Your task to perform on an android device: open the mobile data screen to see how much data has been used Image 0: 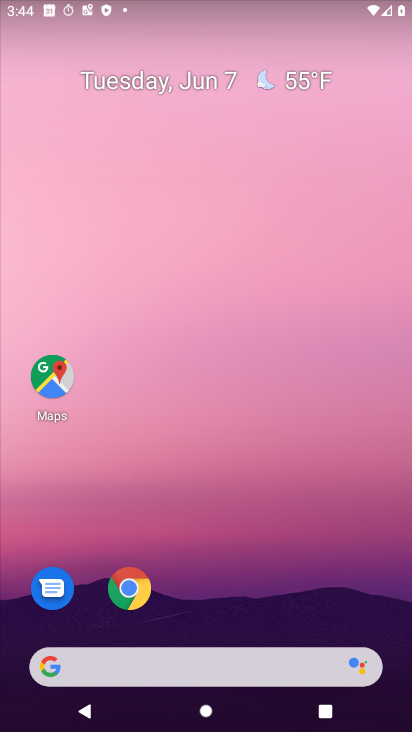
Step 0: drag from (289, 619) to (324, 11)
Your task to perform on an android device: open the mobile data screen to see how much data has been used Image 1: 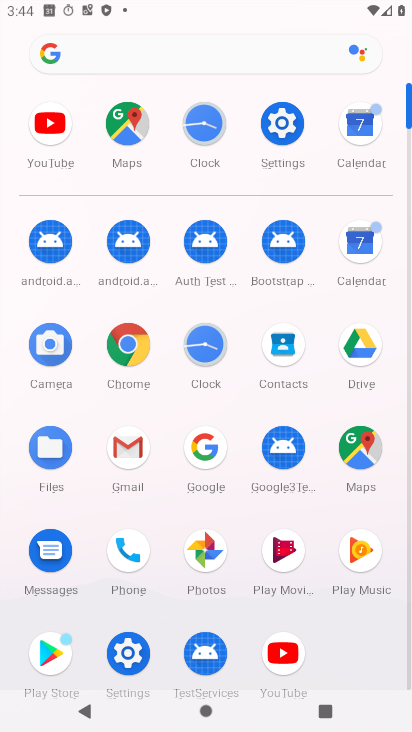
Step 1: click (295, 132)
Your task to perform on an android device: open the mobile data screen to see how much data has been used Image 2: 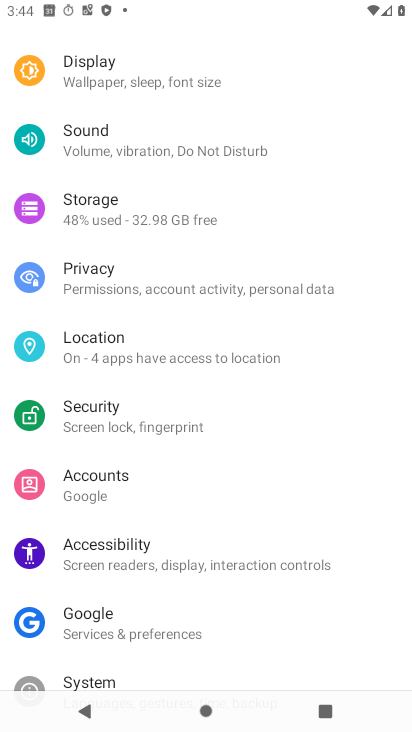
Step 2: drag from (154, 115) to (170, 595)
Your task to perform on an android device: open the mobile data screen to see how much data has been used Image 3: 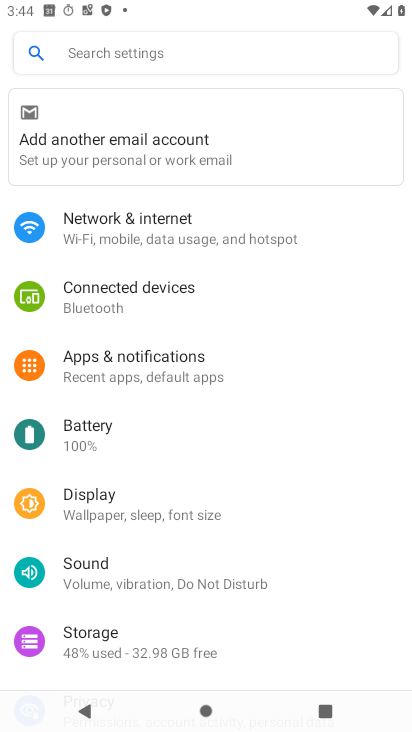
Step 3: click (159, 234)
Your task to perform on an android device: open the mobile data screen to see how much data has been used Image 4: 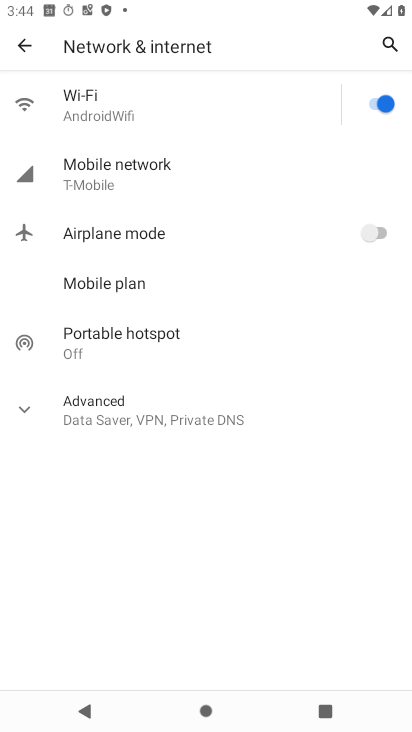
Step 4: click (104, 181)
Your task to perform on an android device: open the mobile data screen to see how much data has been used Image 5: 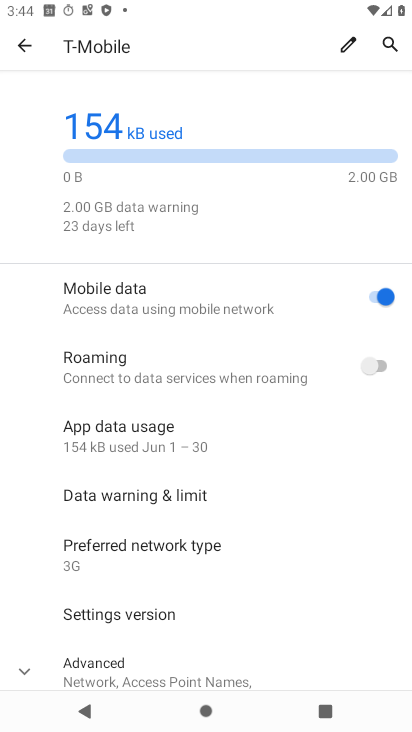
Step 5: drag from (333, 611) to (320, 400)
Your task to perform on an android device: open the mobile data screen to see how much data has been used Image 6: 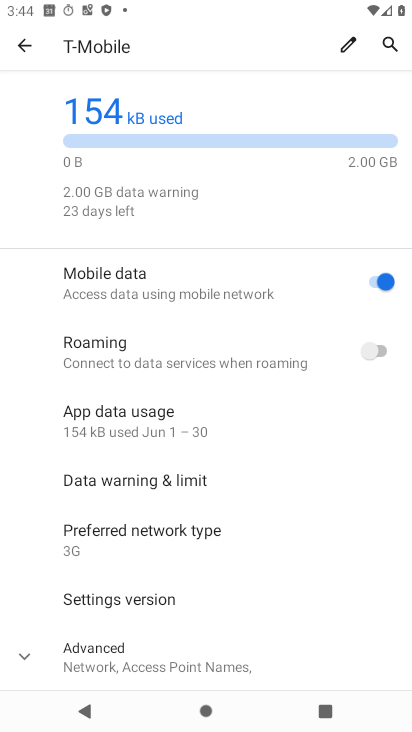
Step 6: click (115, 423)
Your task to perform on an android device: open the mobile data screen to see how much data has been used Image 7: 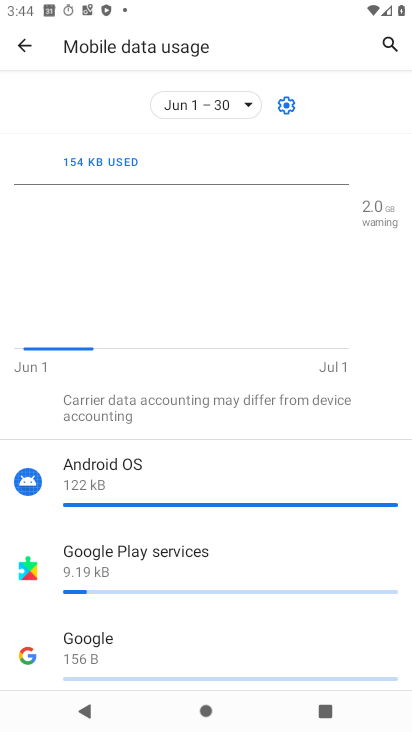
Step 7: task complete